Your task to perform on an android device: delete a single message in the gmail app Image 0: 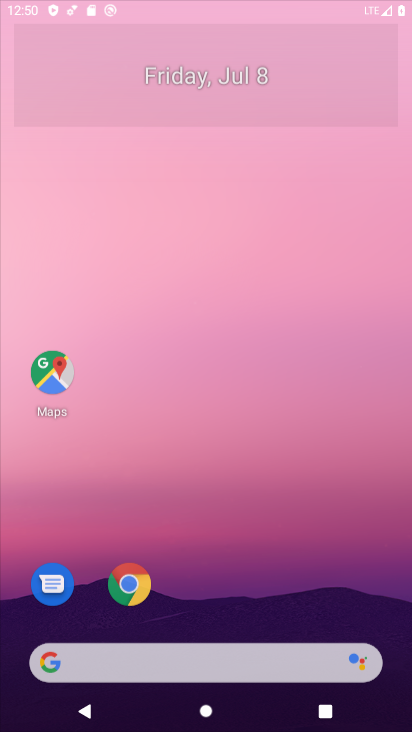
Step 0: click (263, 26)
Your task to perform on an android device: delete a single message in the gmail app Image 1: 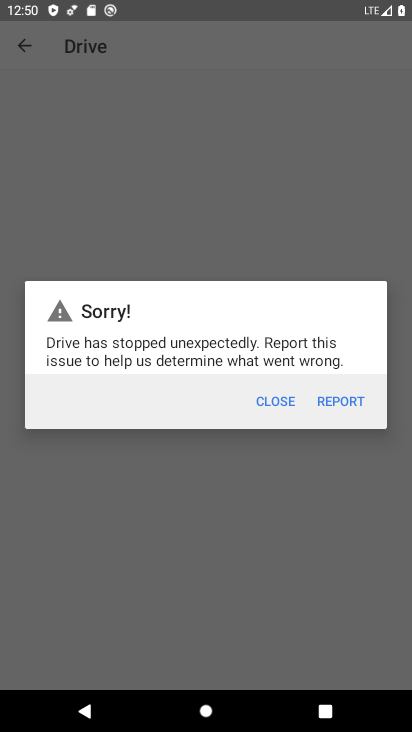
Step 1: press home button
Your task to perform on an android device: delete a single message in the gmail app Image 2: 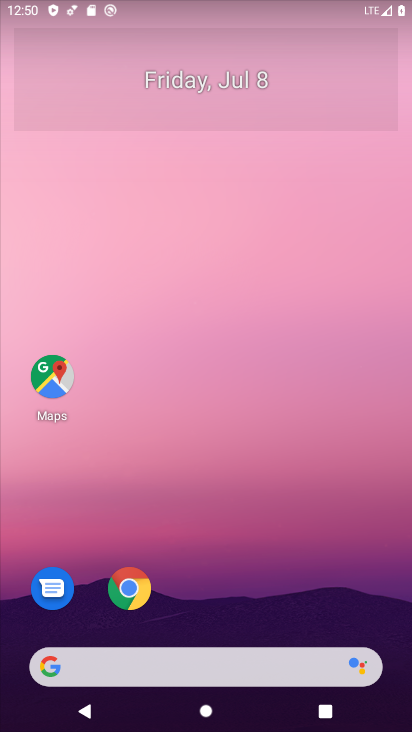
Step 2: drag from (218, 627) to (232, 12)
Your task to perform on an android device: delete a single message in the gmail app Image 3: 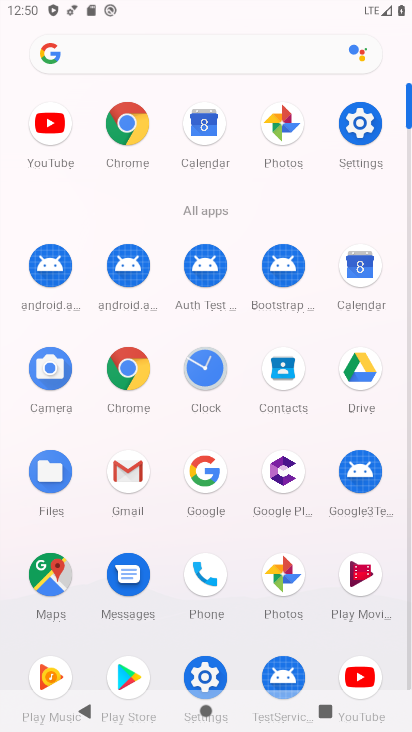
Step 3: click (131, 479)
Your task to perform on an android device: delete a single message in the gmail app Image 4: 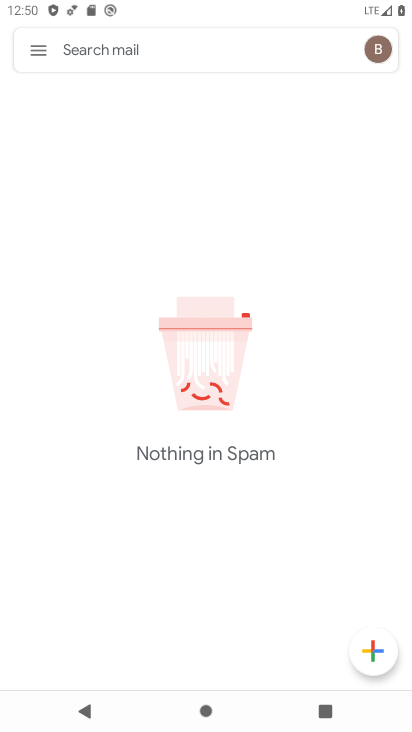
Step 4: task complete